Your task to perform on an android device: turn off notifications in google photos Image 0: 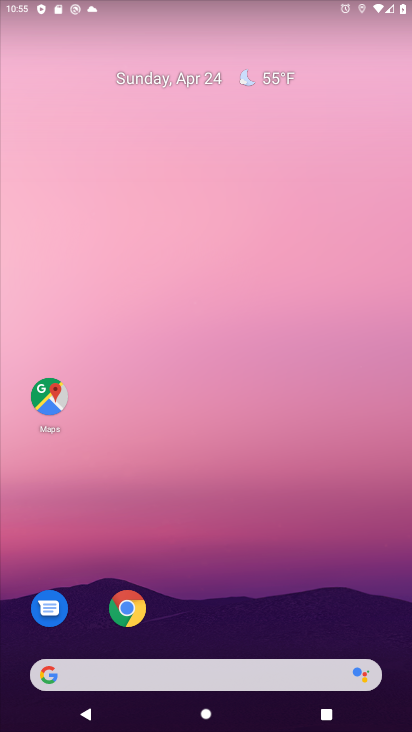
Step 0: press home button
Your task to perform on an android device: turn off notifications in google photos Image 1: 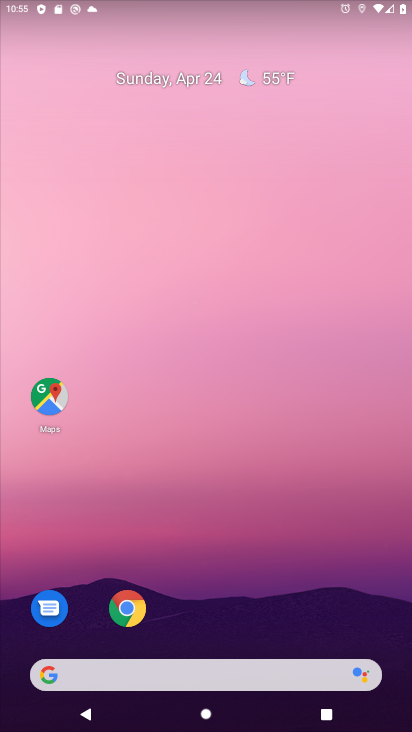
Step 1: drag from (336, 606) to (304, 110)
Your task to perform on an android device: turn off notifications in google photos Image 2: 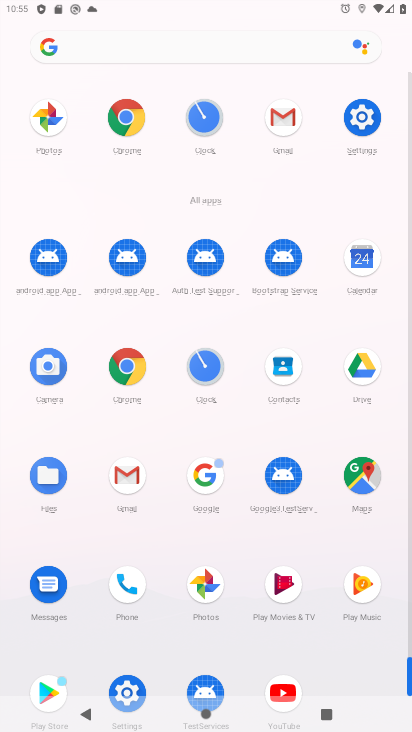
Step 2: click (408, 647)
Your task to perform on an android device: turn off notifications in google photos Image 3: 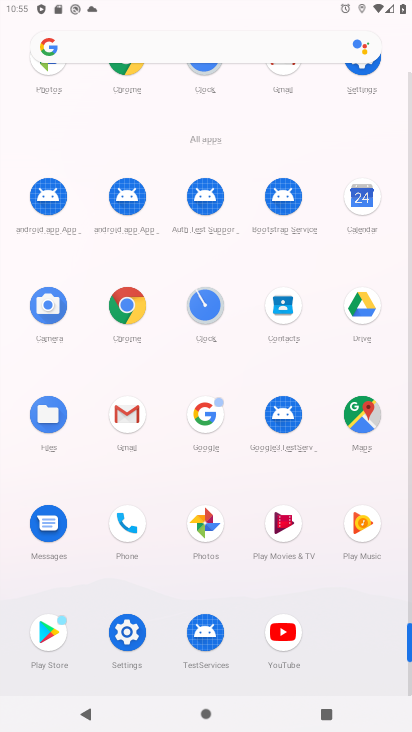
Step 3: click (201, 520)
Your task to perform on an android device: turn off notifications in google photos Image 4: 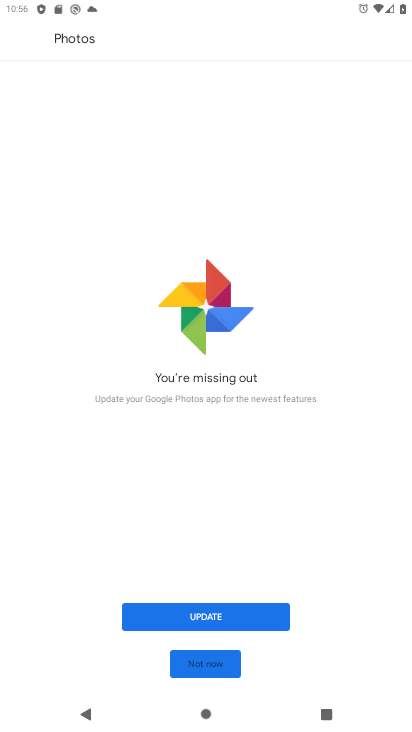
Step 4: click (199, 618)
Your task to perform on an android device: turn off notifications in google photos Image 5: 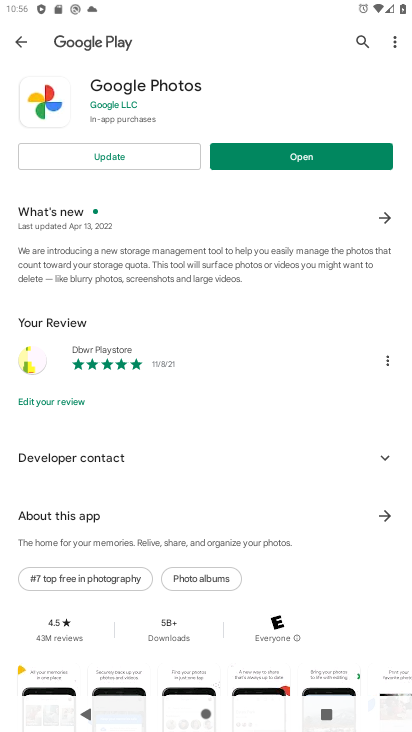
Step 5: click (101, 154)
Your task to perform on an android device: turn off notifications in google photos Image 6: 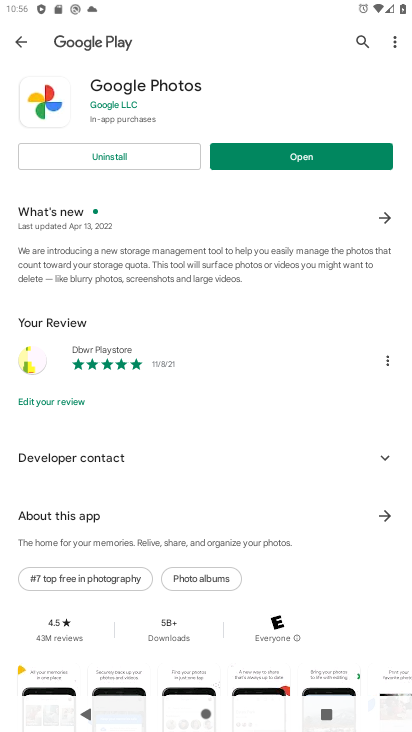
Step 6: click (304, 155)
Your task to perform on an android device: turn off notifications in google photos Image 7: 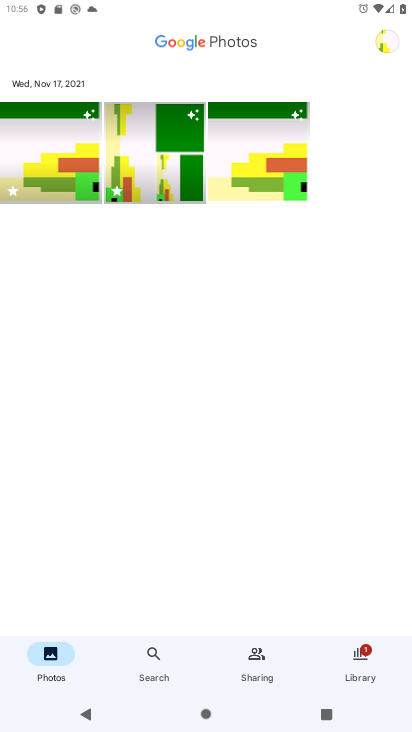
Step 7: click (387, 50)
Your task to perform on an android device: turn off notifications in google photos Image 8: 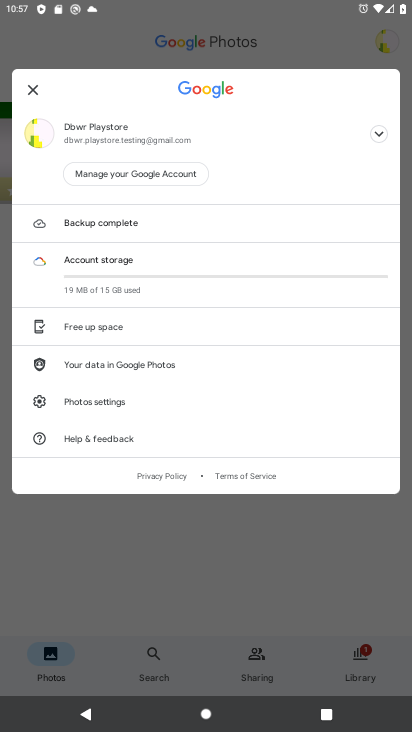
Step 8: click (79, 401)
Your task to perform on an android device: turn off notifications in google photos Image 9: 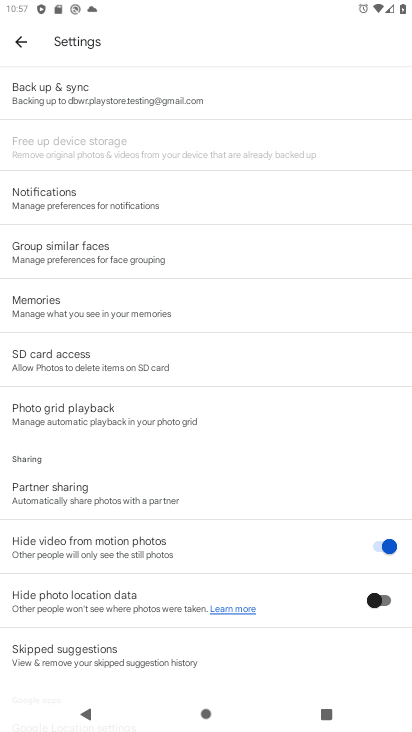
Step 9: click (51, 191)
Your task to perform on an android device: turn off notifications in google photos Image 10: 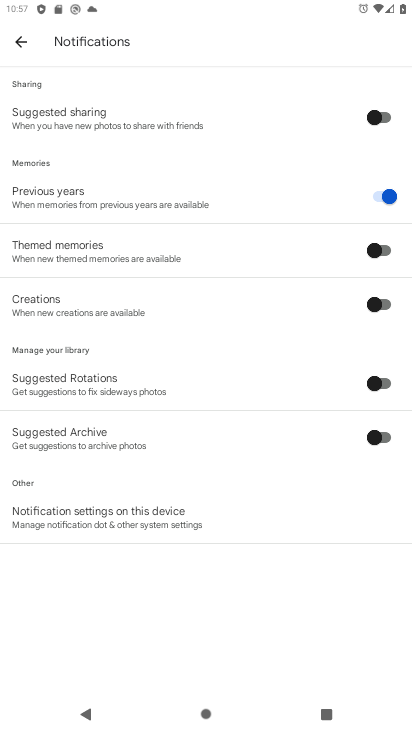
Step 10: click (128, 522)
Your task to perform on an android device: turn off notifications in google photos Image 11: 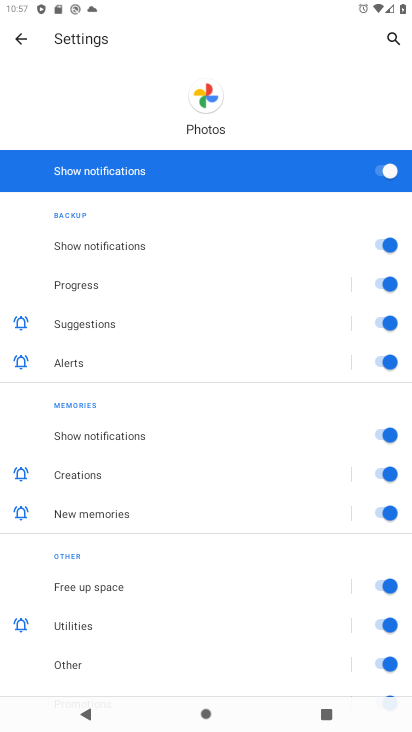
Step 11: click (371, 166)
Your task to perform on an android device: turn off notifications in google photos Image 12: 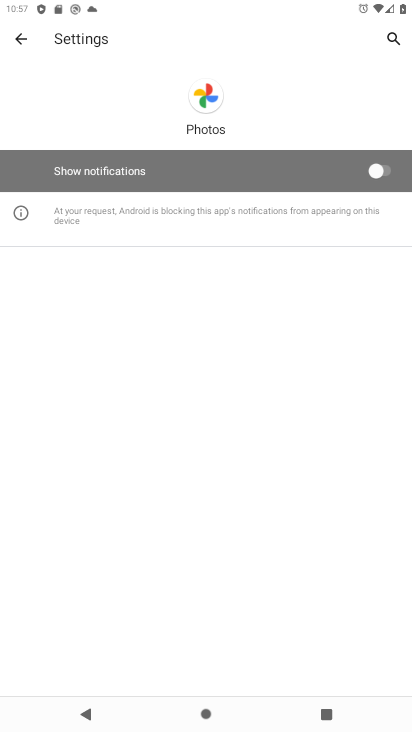
Step 12: task complete